Your task to perform on an android device: toggle notifications settings in the gmail app Image 0: 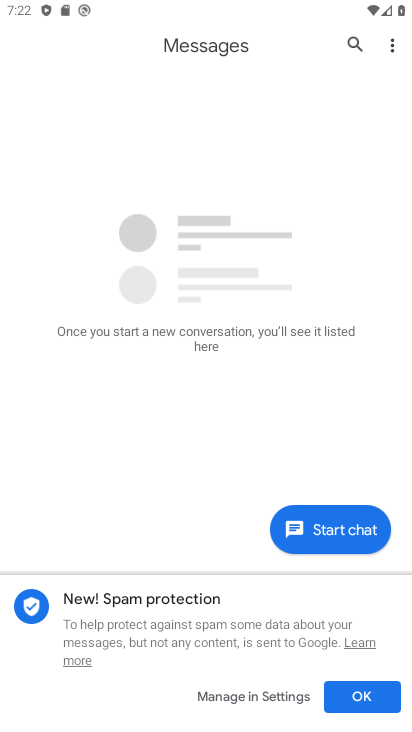
Step 0: press home button
Your task to perform on an android device: toggle notifications settings in the gmail app Image 1: 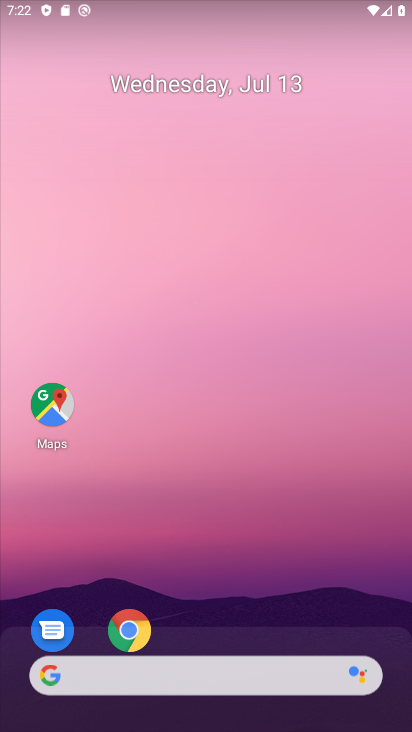
Step 1: drag from (332, 617) to (340, 51)
Your task to perform on an android device: toggle notifications settings in the gmail app Image 2: 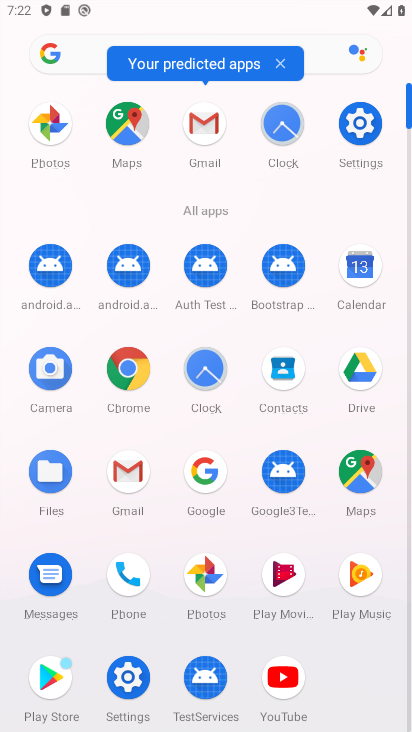
Step 2: click (131, 475)
Your task to perform on an android device: toggle notifications settings in the gmail app Image 3: 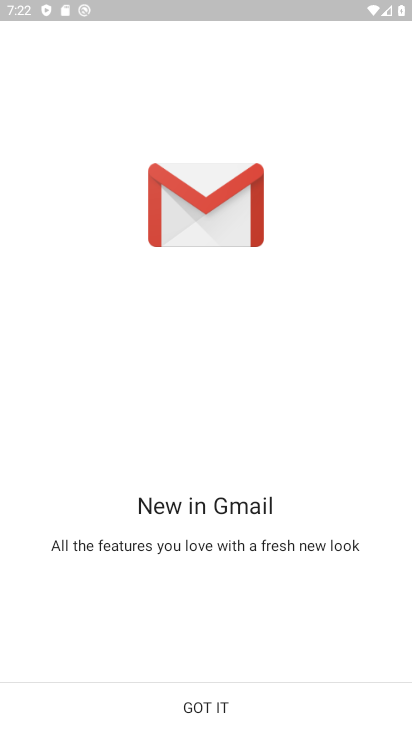
Step 3: click (198, 712)
Your task to perform on an android device: toggle notifications settings in the gmail app Image 4: 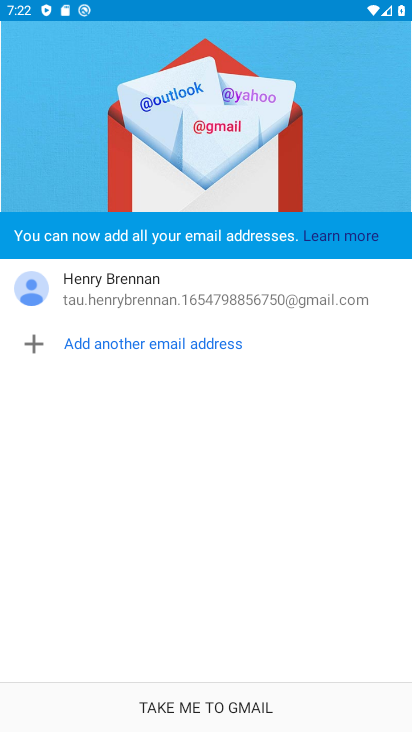
Step 4: click (198, 712)
Your task to perform on an android device: toggle notifications settings in the gmail app Image 5: 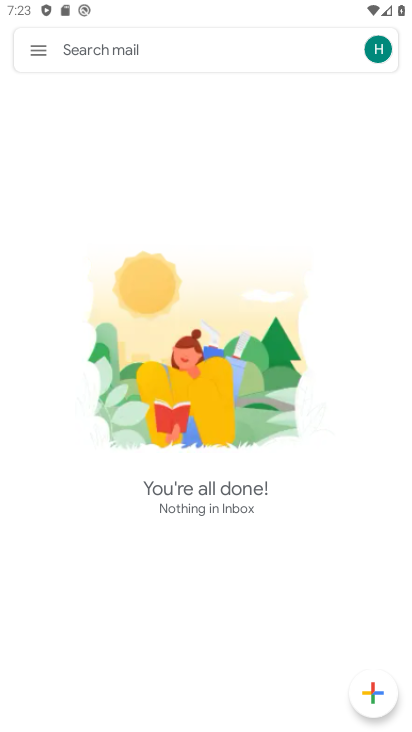
Step 5: click (30, 44)
Your task to perform on an android device: toggle notifications settings in the gmail app Image 6: 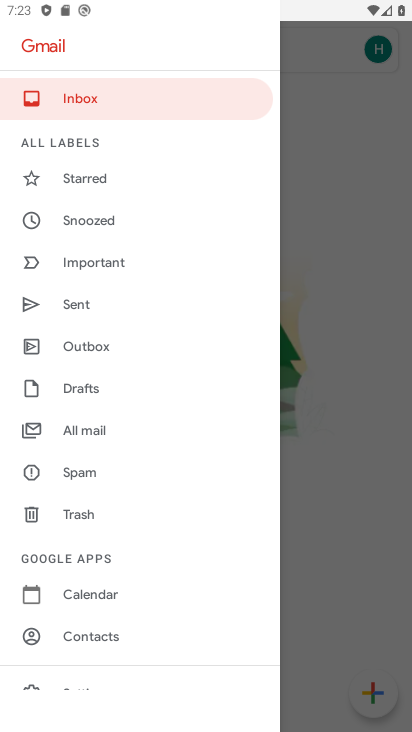
Step 6: drag from (196, 359) to (215, 282)
Your task to perform on an android device: toggle notifications settings in the gmail app Image 7: 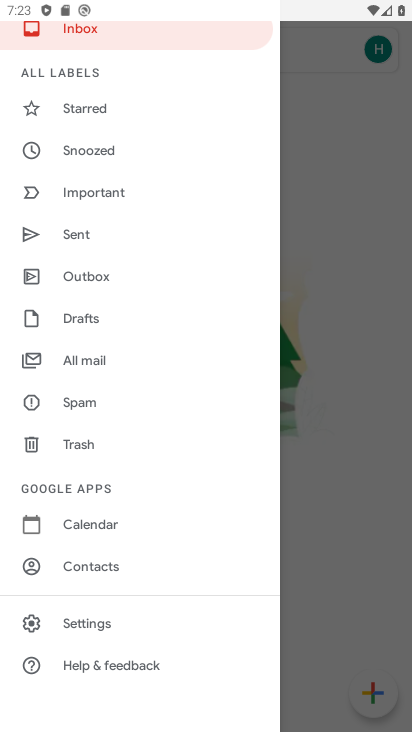
Step 7: drag from (214, 375) to (232, 248)
Your task to perform on an android device: toggle notifications settings in the gmail app Image 8: 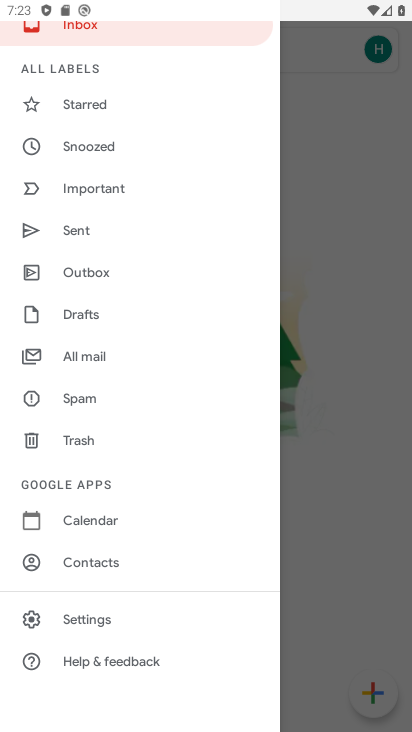
Step 8: click (140, 619)
Your task to perform on an android device: toggle notifications settings in the gmail app Image 9: 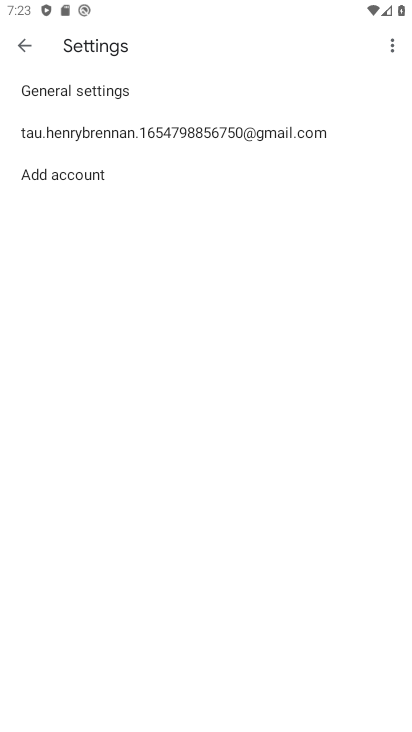
Step 9: click (168, 130)
Your task to perform on an android device: toggle notifications settings in the gmail app Image 10: 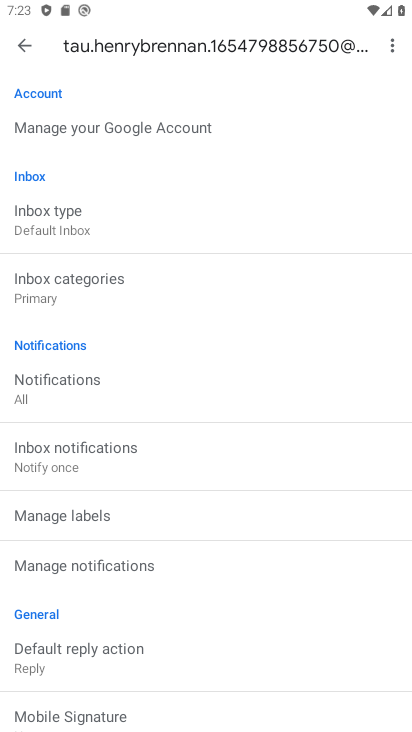
Step 10: drag from (309, 362) to (309, 289)
Your task to perform on an android device: toggle notifications settings in the gmail app Image 11: 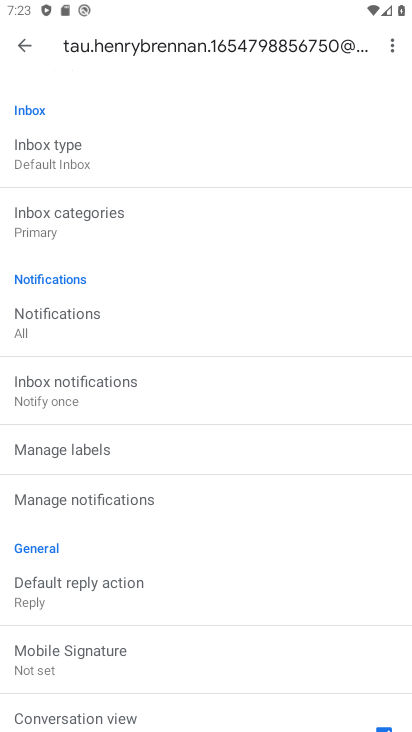
Step 11: drag from (321, 406) to (326, 324)
Your task to perform on an android device: toggle notifications settings in the gmail app Image 12: 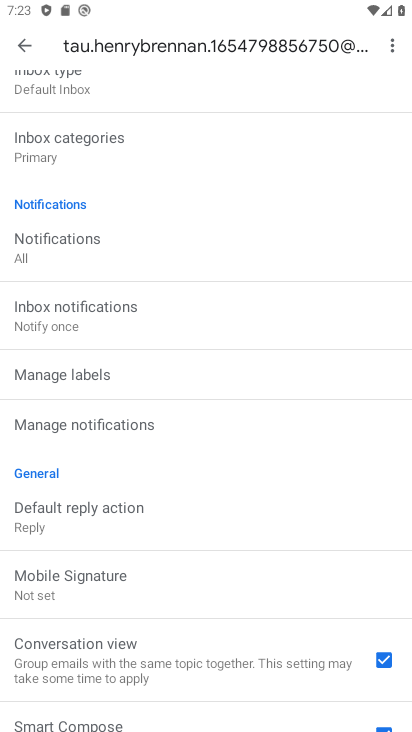
Step 12: drag from (328, 464) to (331, 329)
Your task to perform on an android device: toggle notifications settings in the gmail app Image 13: 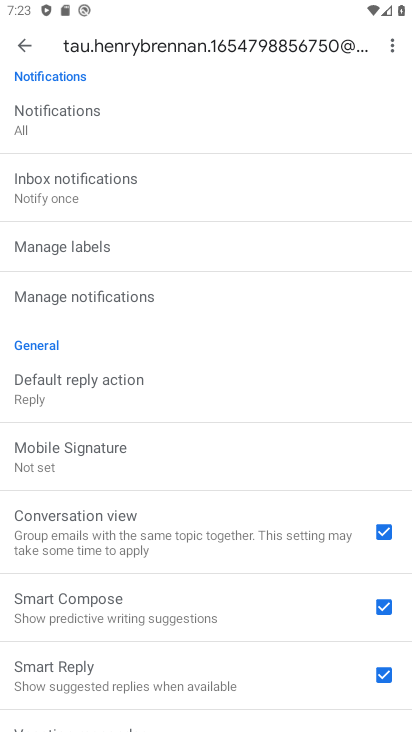
Step 13: drag from (312, 448) to (298, 337)
Your task to perform on an android device: toggle notifications settings in the gmail app Image 14: 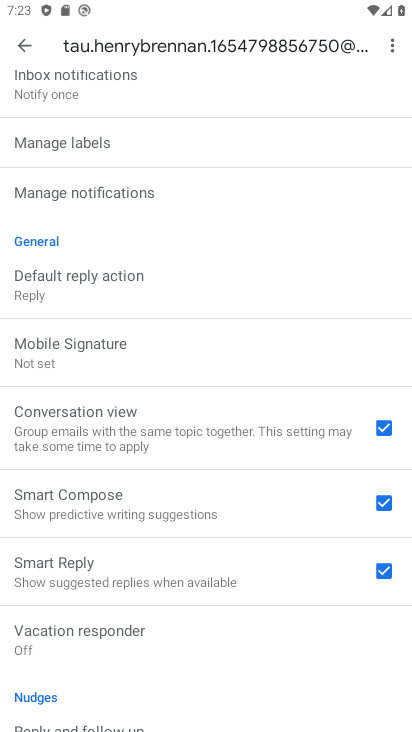
Step 14: drag from (280, 488) to (287, 326)
Your task to perform on an android device: toggle notifications settings in the gmail app Image 15: 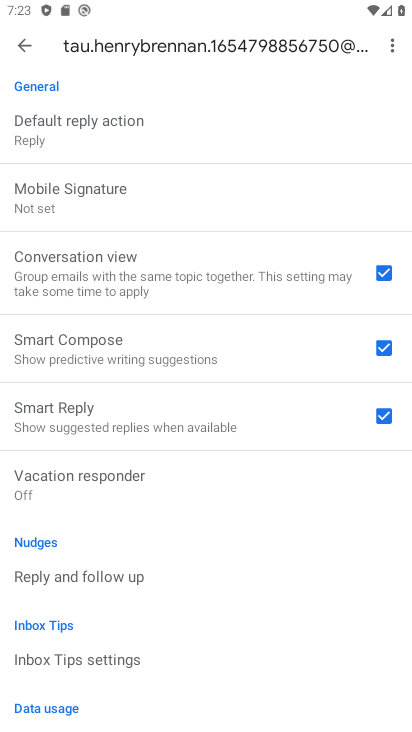
Step 15: drag from (281, 462) to (286, 273)
Your task to perform on an android device: toggle notifications settings in the gmail app Image 16: 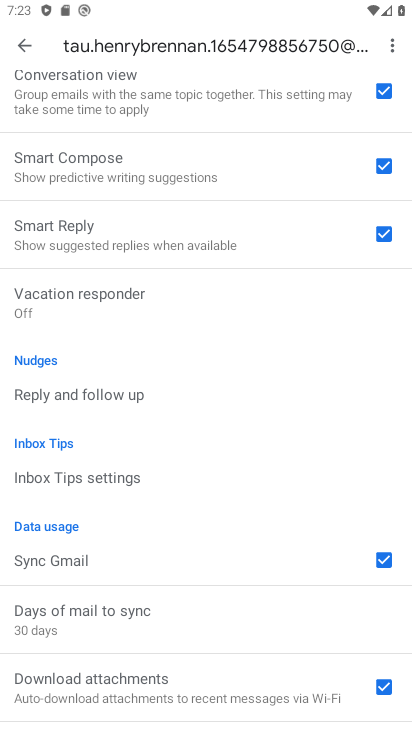
Step 16: drag from (288, 509) to (287, 338)
Your task to perform on an android device: toggle notifications settings in the gmail app Image 17: 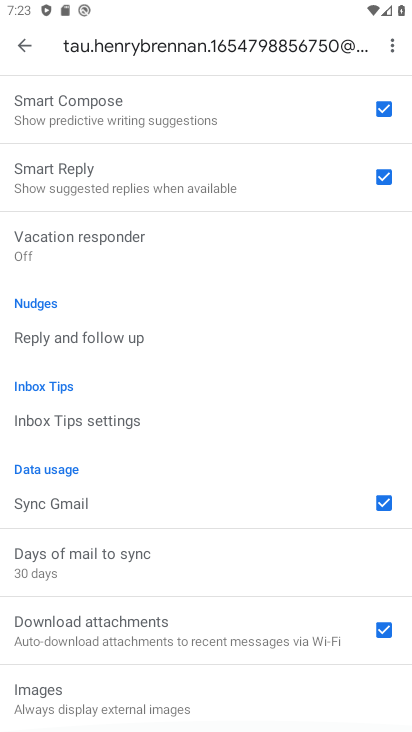
Step 17: drag from (289, 280) to (282, 384)
Your task to perform on an android device: toggle notifications settings in the gmail app Image 18: 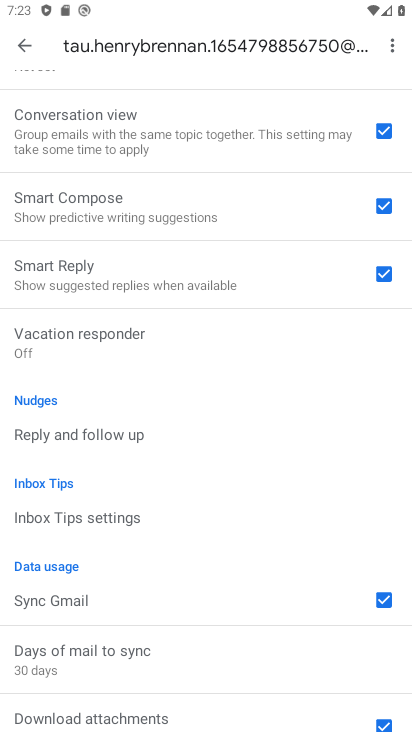
Step 18: drag from (279, 276) to (284, 415)
Your task to perform on an android device: toggle notifications settings in the gmail app Image 19: 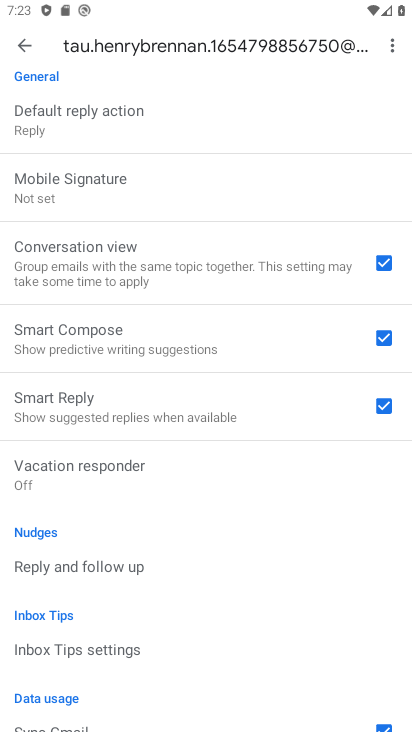
Step 19: drag from (270, 247) to (267, 434)
Your task to perform on an android device: toggle notifications settings in the gmail app Image 20: 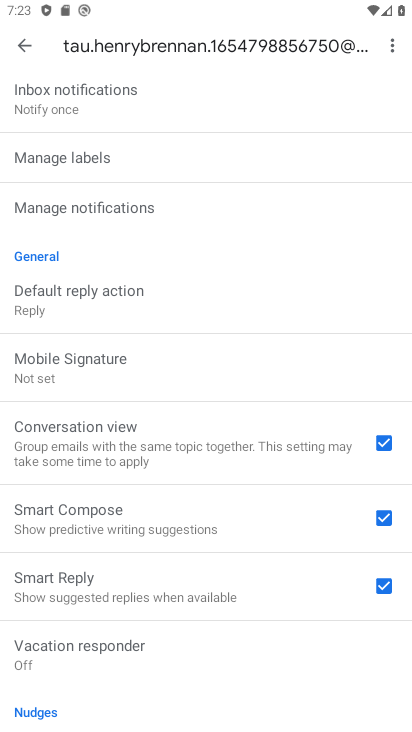
Step 20: drag from (273, 249) to (267, 393)
Your task to perform on an android device: toggle notifications settings in the gmail app Image 21: 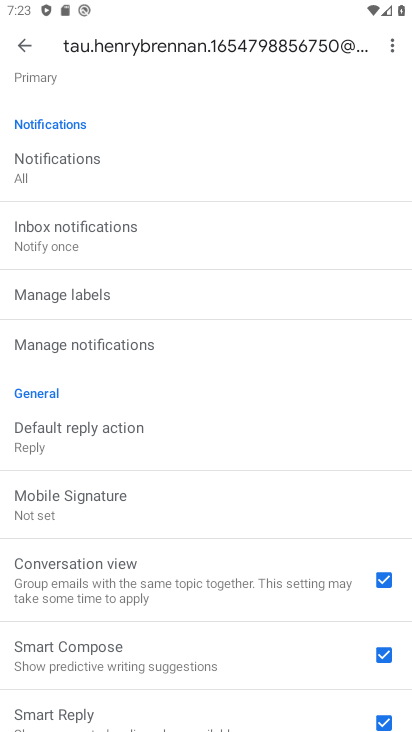
Step 21: click (176, 349)
Your task to perform on an android device: toggle notifications settings in the gmail app Image 22: 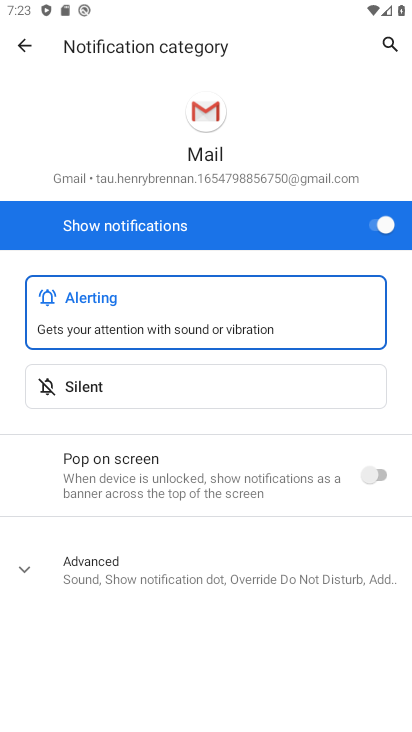
Step 22: click (381, 230)
Your task to perform on an android device: toggle notifications settings in the gmail app Image 23: 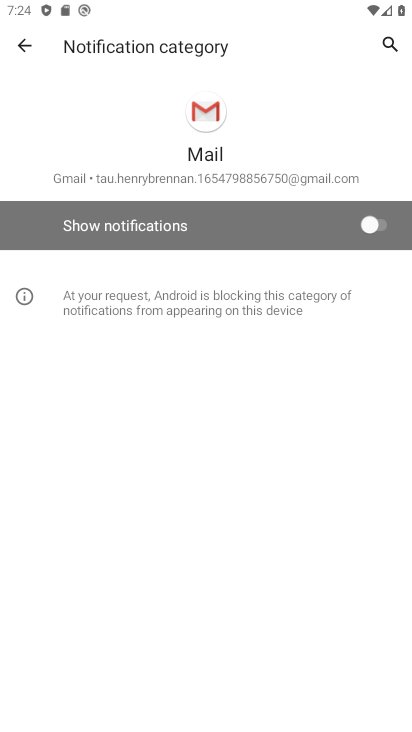
Step 23: task complete